Your task to perform on an android device: Open Android settings Image 0: 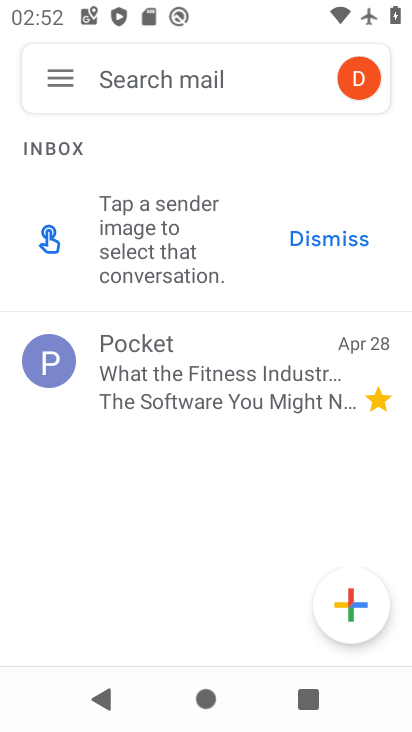
Step 0: press home button
Your task to perform on an android device: Open Android settings Image 1: 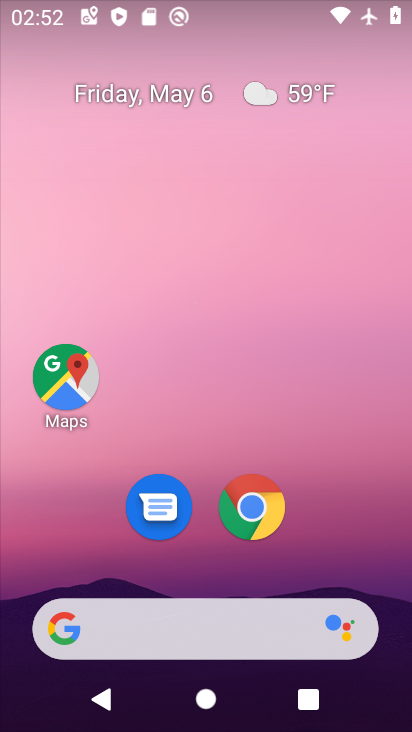
Step 1: drag from (346, 539) to (350, 133)
Your task to perform on an android device: Open Android settings Image 2: 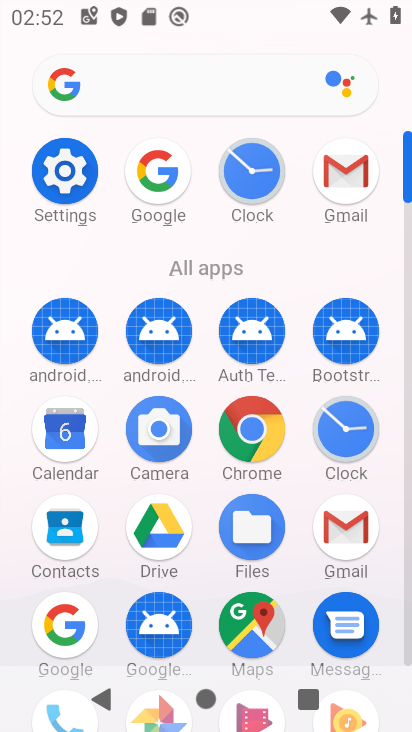
Step 2: click (69, 177)
Your task to perform on an android device: Open Android settings Image 3: 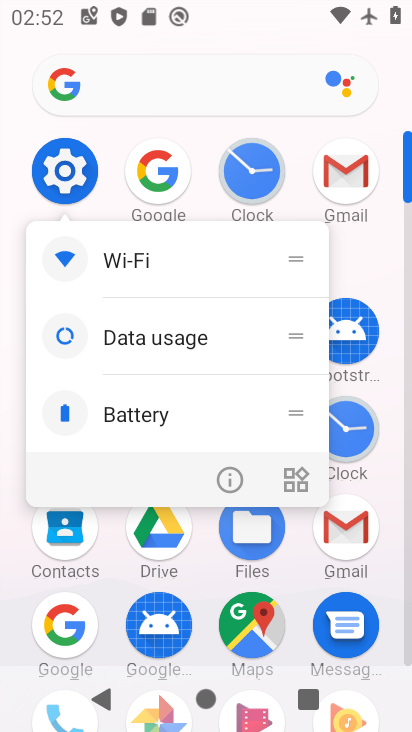
Step 3: click (64, 183)
Your task to perform on an android device: Open Android settings Image 4: 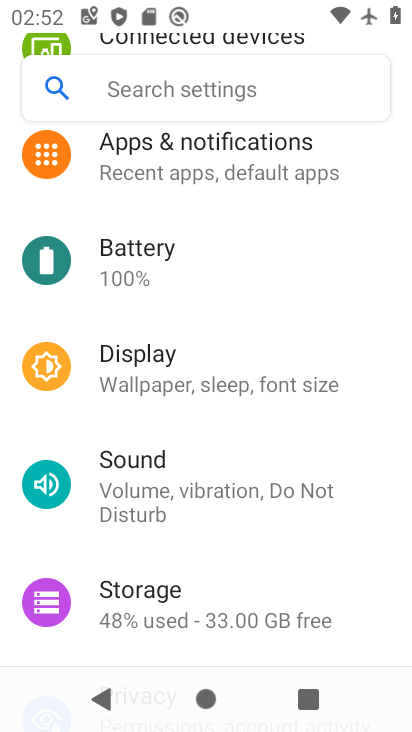
Step 4: drag from (275, 573) to (275, 189)
Your task to perform on an android device: Open Android settings Image 5: 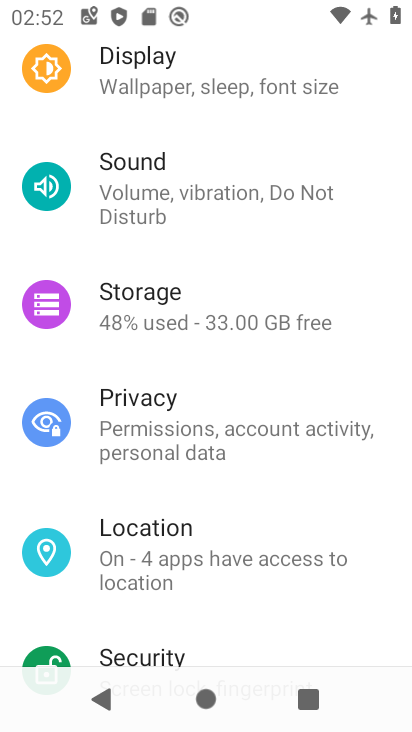
Step 5: drag from (314, 600) to (280, 163)
Your task to perform on an android device: Open Android settings Image 6: 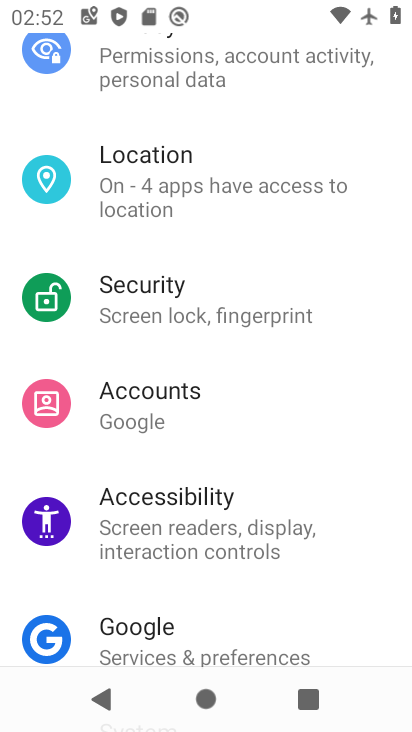
Step 6: drag from (252, 599) to (262, 326)
Your task to perform on an android device: Open Android settings Image 7: 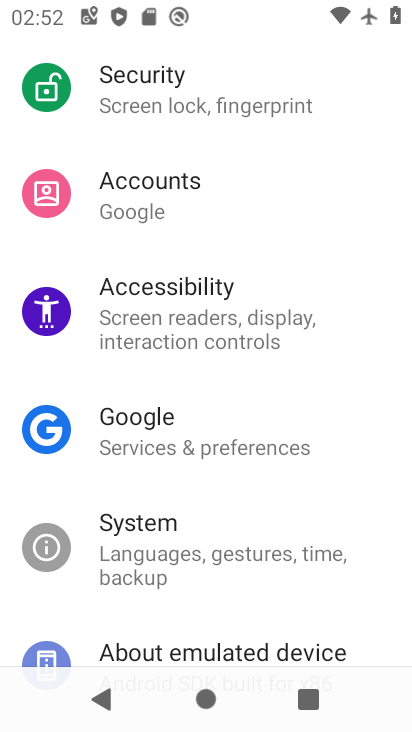
Step 7: drag from (202, 582) to (212, 401)
Your task to perform on an android device: Open Android settings Image 8: 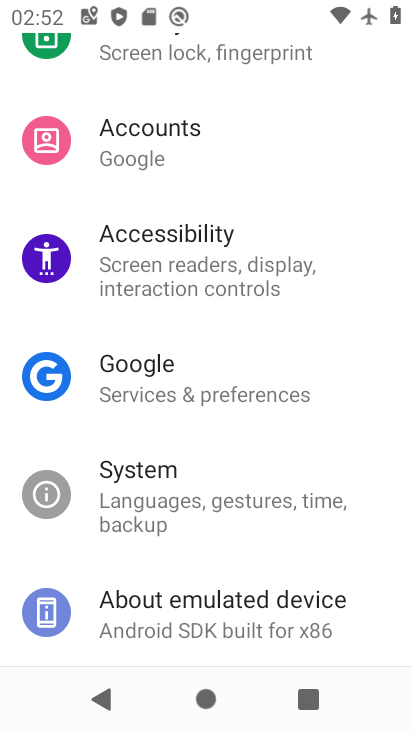
Step 8: click (148, 616)
Your task to perform on an android device: Open Android settings Image 9: 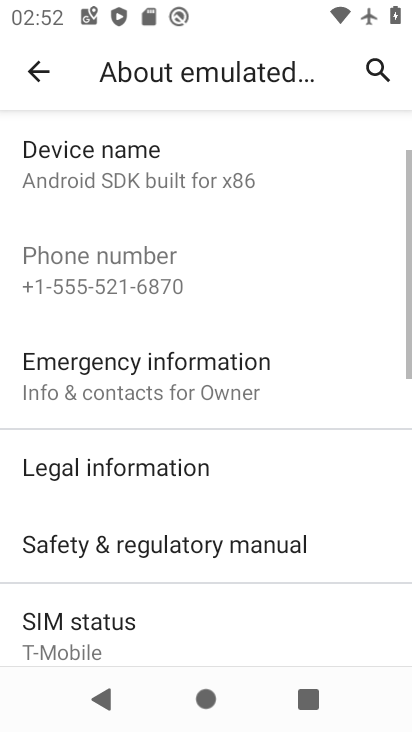
Step 9: drag from (167, 615) to (180, 320)
Your task to perform on an android device: Open Android settings Image 10: 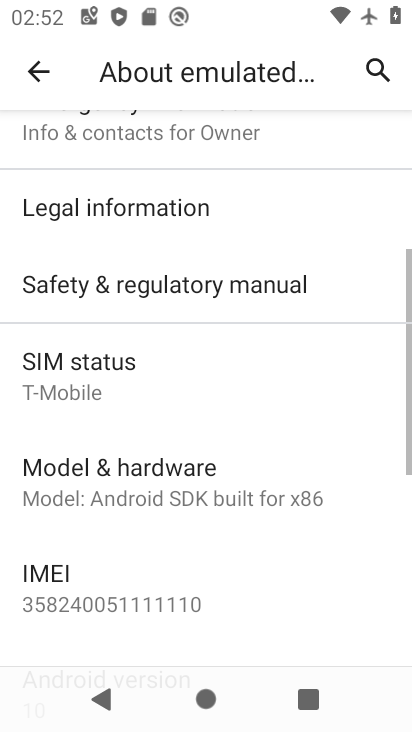
Step 10: drag from (165, 626) to (181, 375)
Your task to perform on an android device: Open Android settings Image 11: 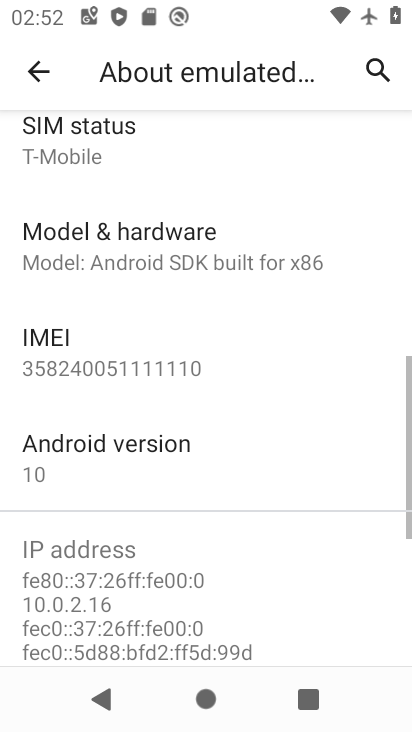
Step 11: click (149, 454)
Your task to perform on an android device: Open Android settings Image 12: 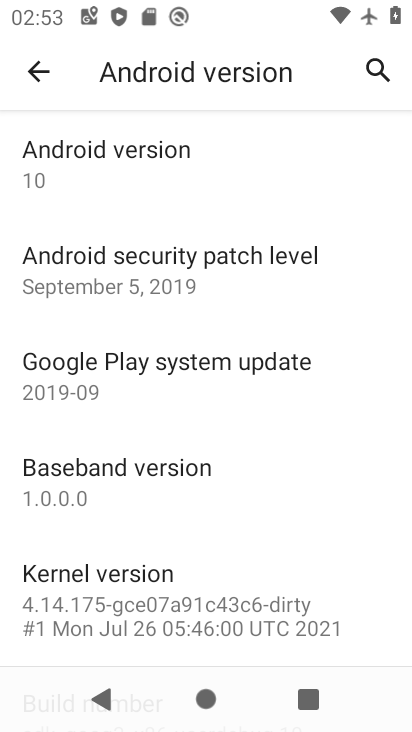
Step 12: task complete